Your task to perform on an android device: Open Google Image 0: 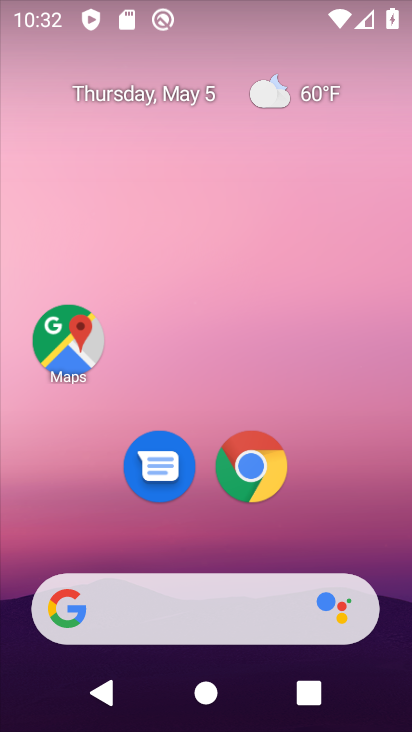
Step 0: drag from (224, 551) to (231, 160)
Your task to perform on an android device: Open Google Image 1: 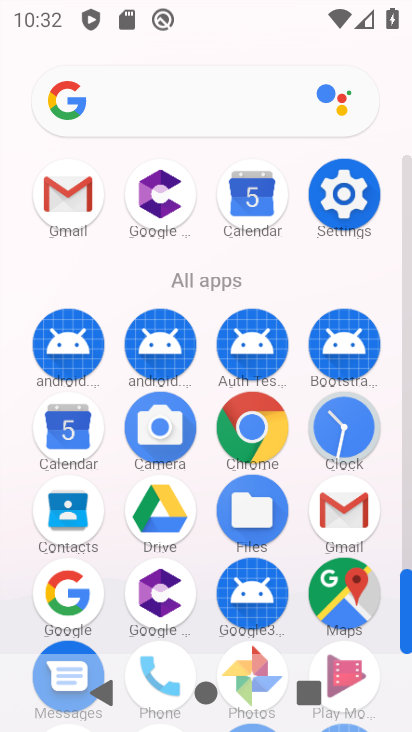
Step 1: drag from (201, 627) to (228, 339)
Your task to perform on an android device: Open Google Image 2: 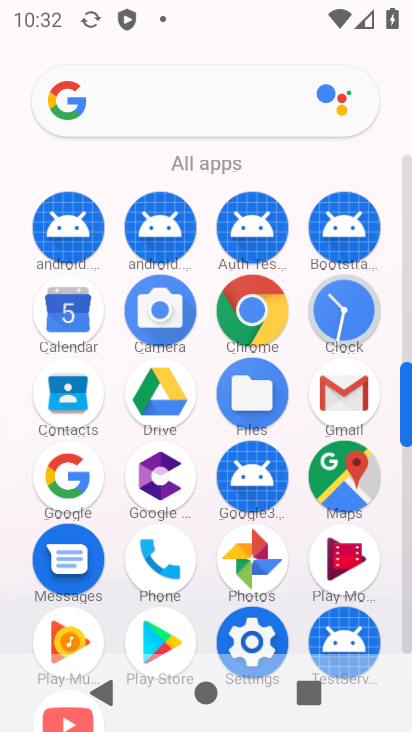
Step 2: click (81, 459)
Your task to perform on an android device: Open Google Image 3: 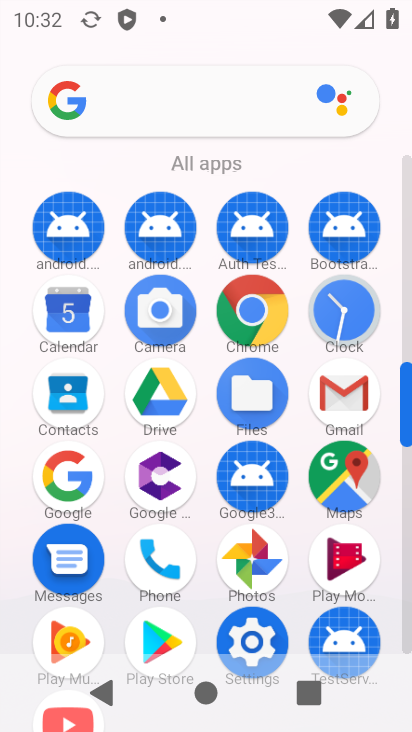
Step 3: click (68, 477)
Your task to perform on an android device: Open Google Image 4: 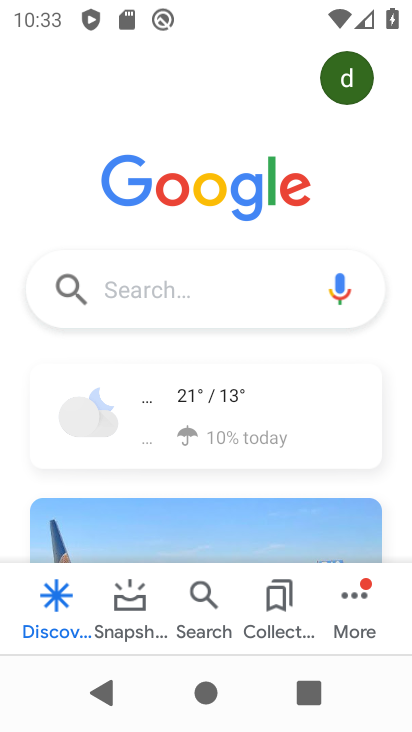
Step 4: task complete